Your task to perform on an android device: Empty the shopping cart on bestbuy. Add "sony triple a" to the cart on bestbuy Image 0: 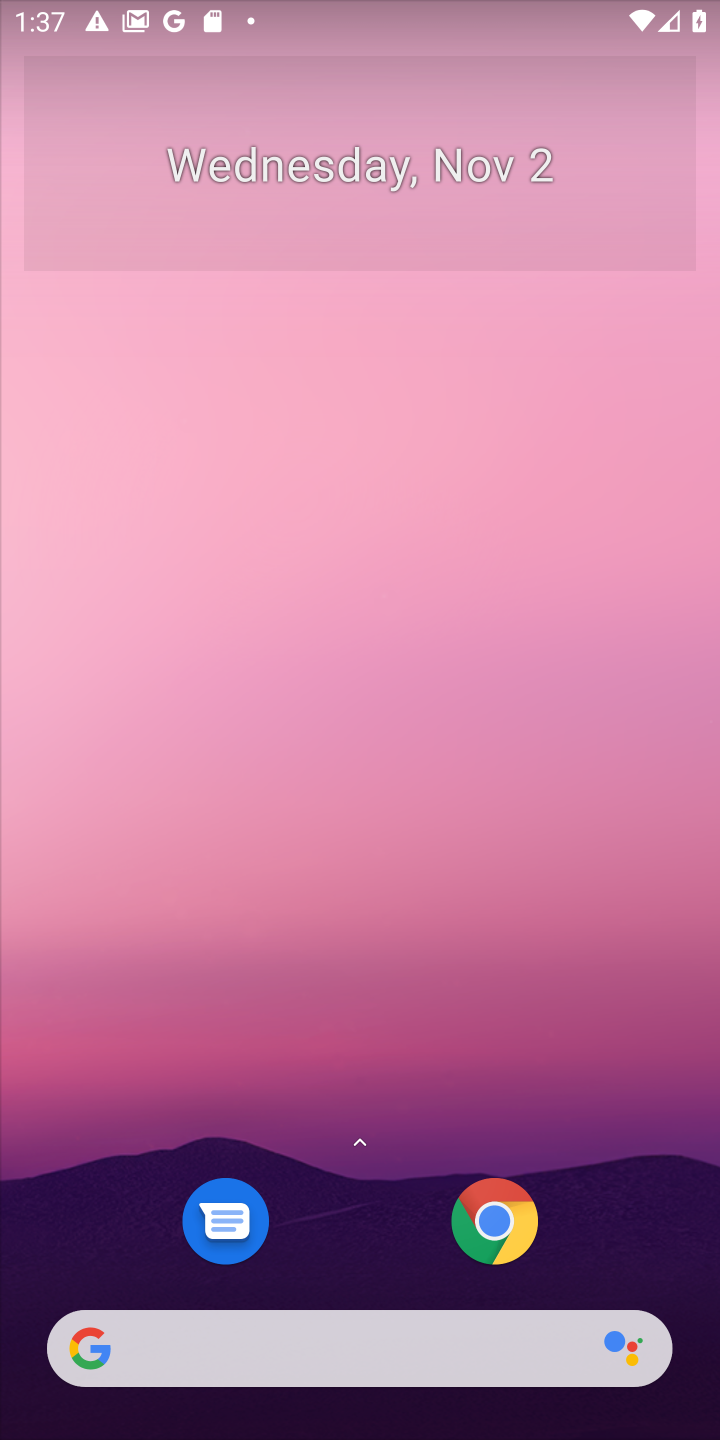
Step 0: click (324, 1337)
Your task to perform on an android device: Empty the shopping cart on bestbuy. Add "sony triple a" to the cart on bestbuy Image 1: 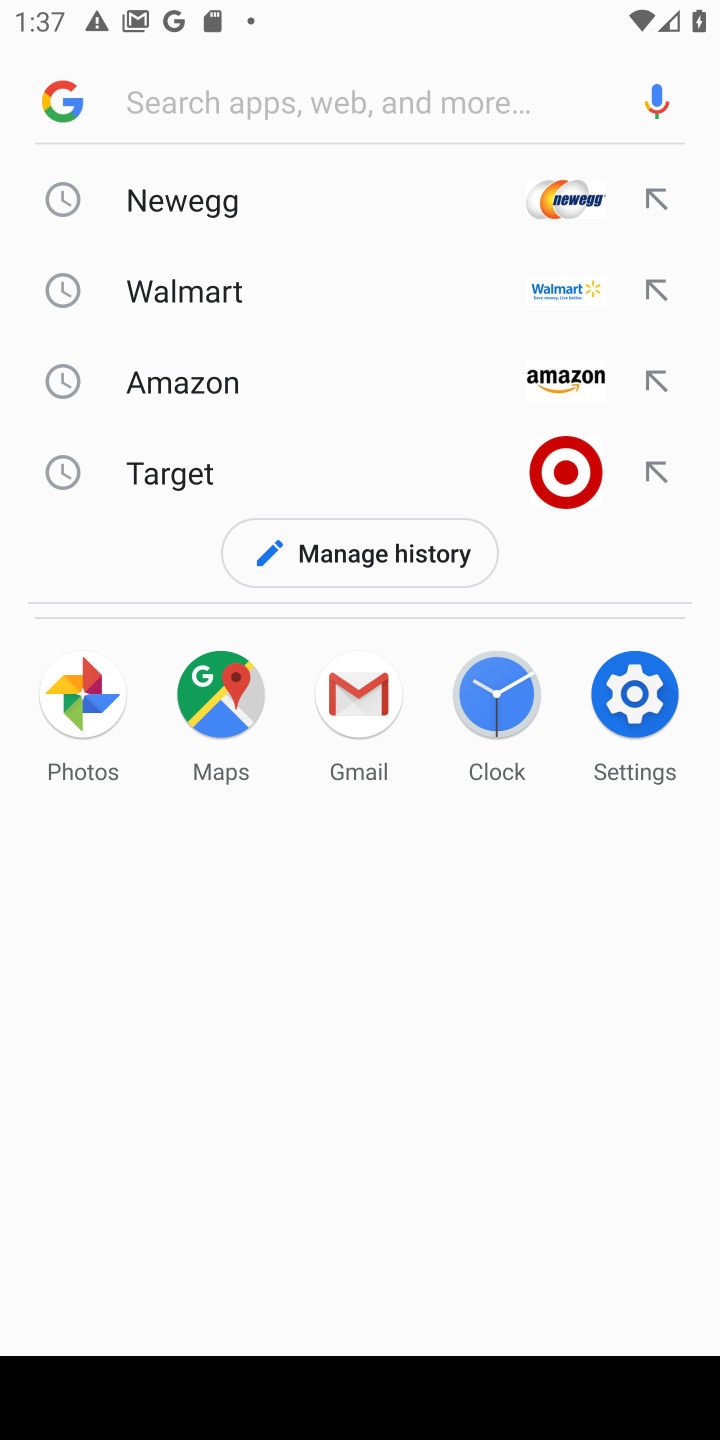
Step 1: type "bestbuy"
Your task to perform on an android device: Empty the shopping cart on bestbuy. Add "sony triple a" to the cart on bestbuy Image 2: 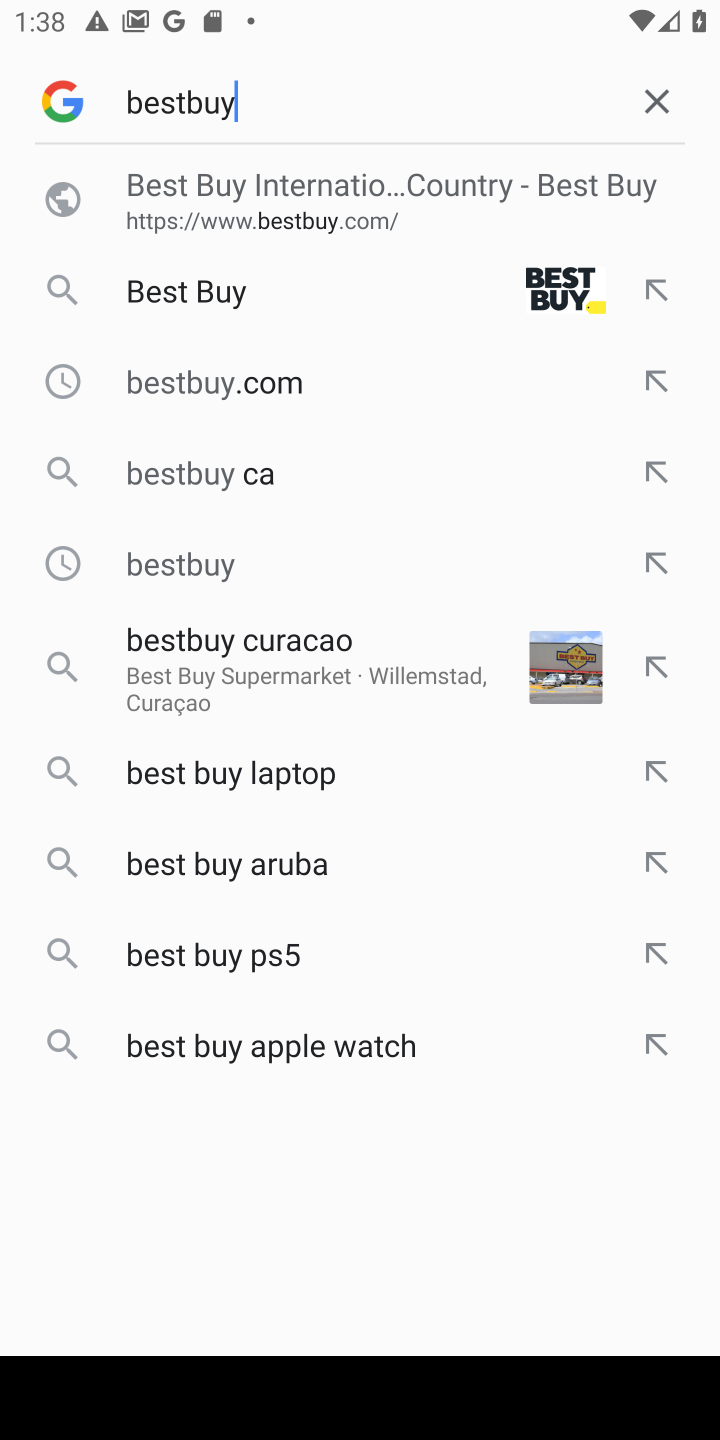
Step 2: click (416, 236)
Your task to perform on an android device: Empty the shopping cart on bestbuy. Add "sony triple a" to the cart on bestbuy Image 3: 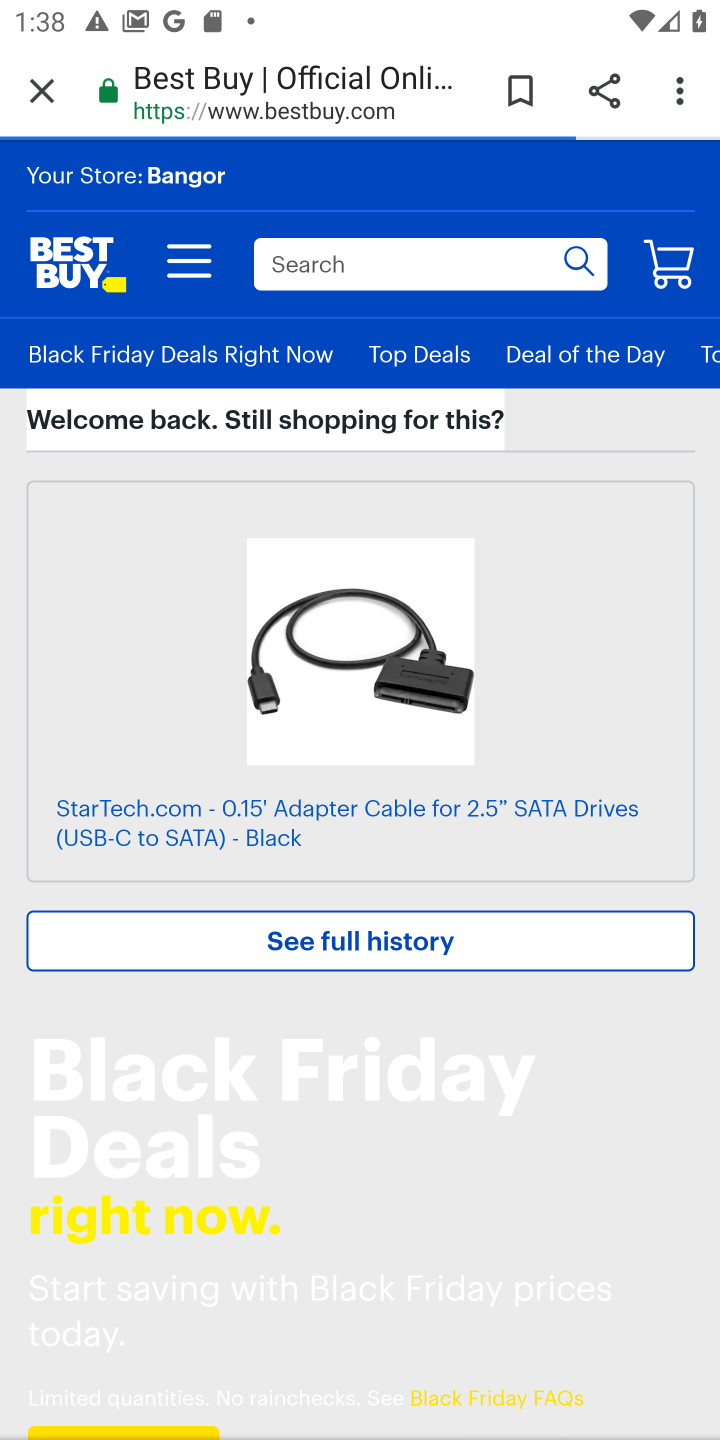
Step 3: click (387, 255)
Your task to perform on an android device: Empty the shopping cart on bestbuy. Add "sony triple a" to the cart on bestbuy Image 4: 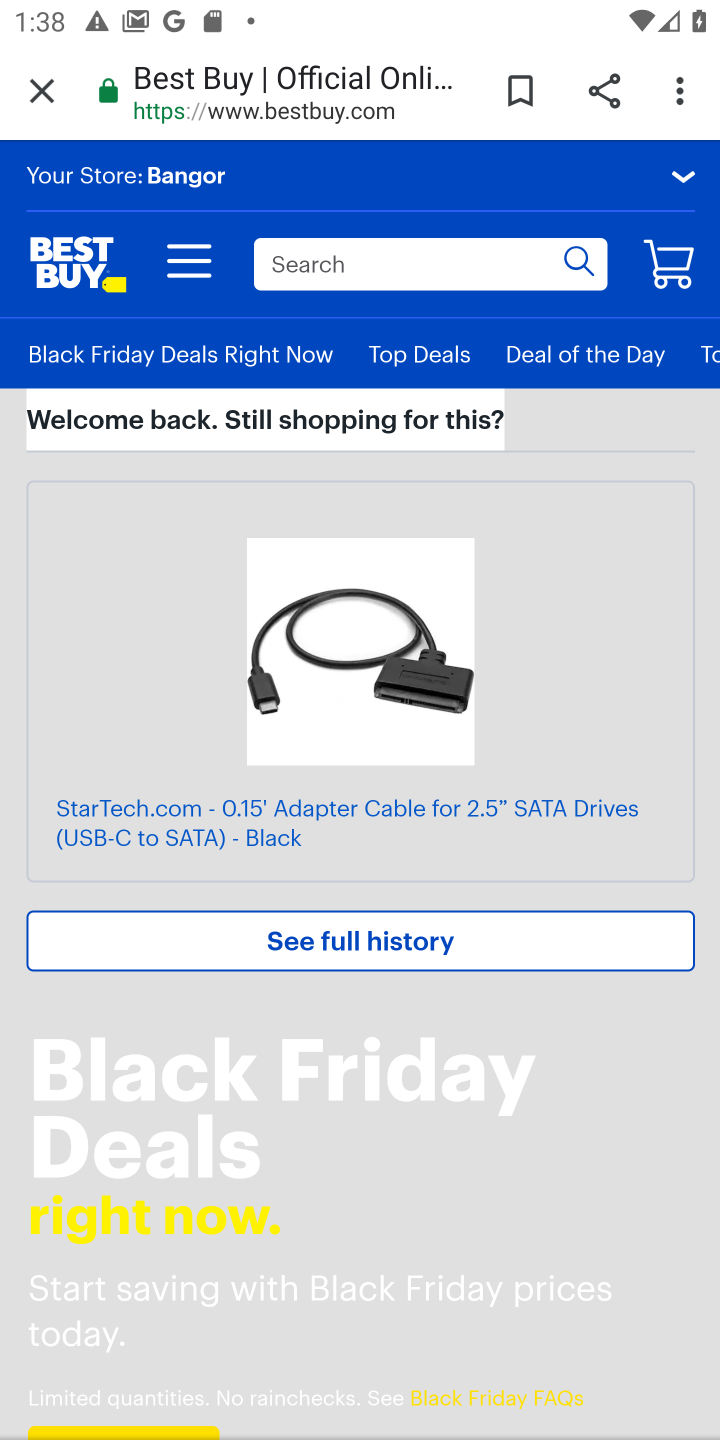
Step 4: type "sony triple a"
Your task to perform on an android device: Empty the shopping cart on bestbuy. Add "sony triple a" to the cart on bestbuy Image 5: 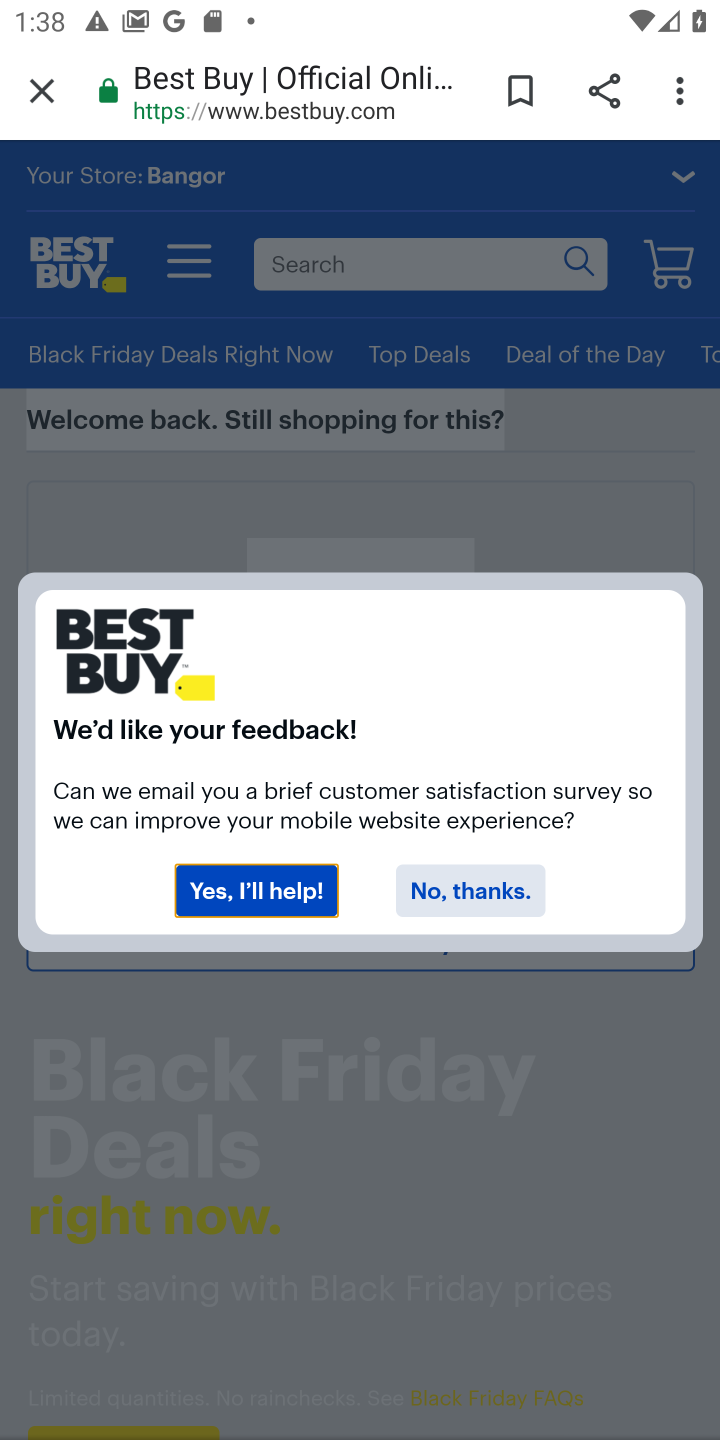
Step 5: click (253, 877)
Your task to perform on an android device: Empty the shopping cart on bestbuy. Add "sony triple a" to the cart on bestbuy Image 6: 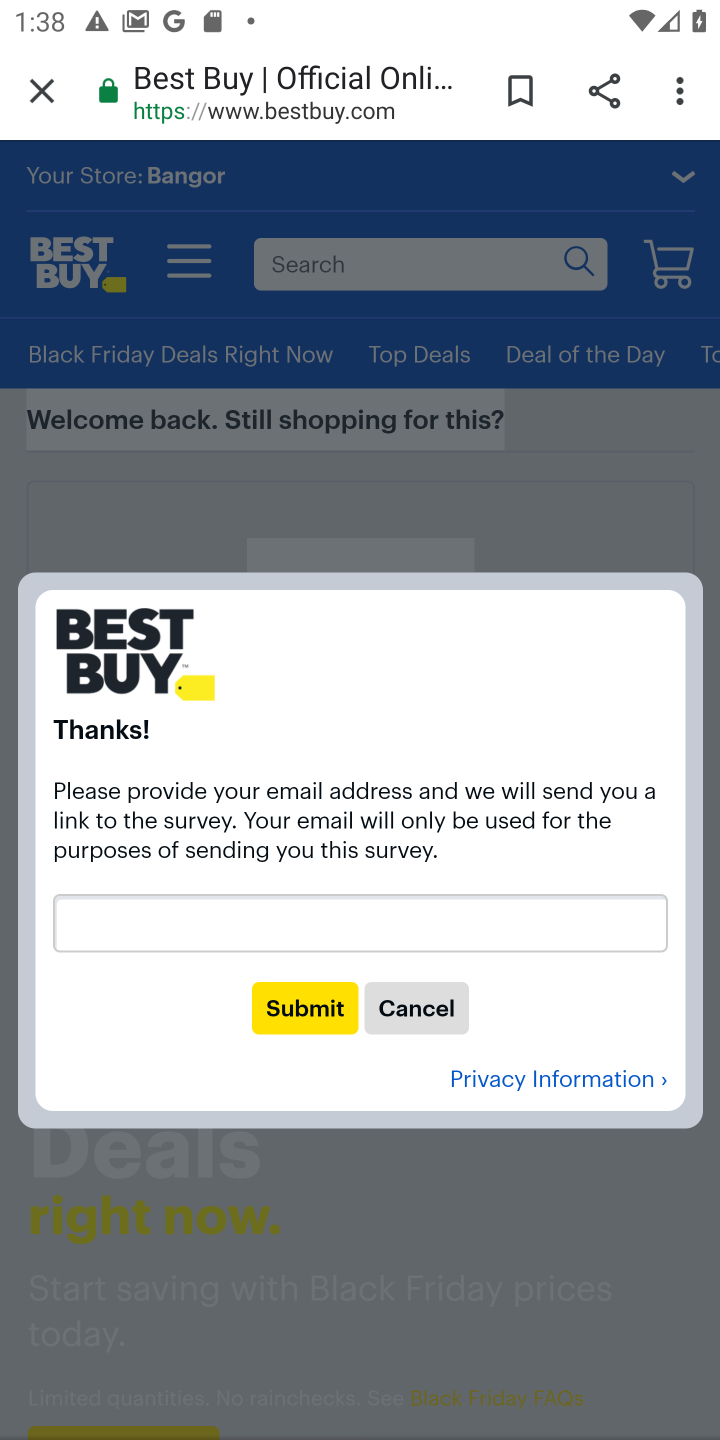
Step 6: task complete